Your task to perform on an android device: turn on airplane mode Image 0: 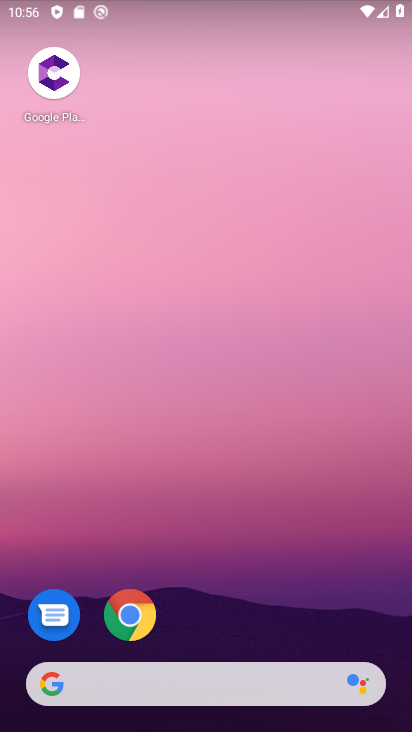
Step 0: drag from (275, 600) to (337, 36)
Your task to perform on an android device: turn on airplane mode Image 1: 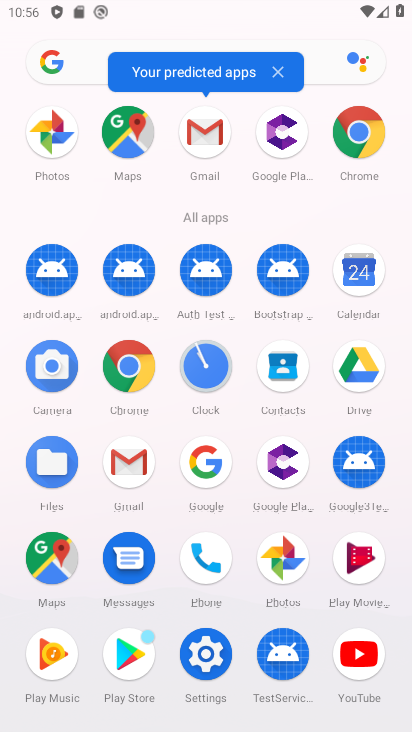
Step 1: click (197, 660)
Your task to perform on an android device: turn on airplane mode Image 2: 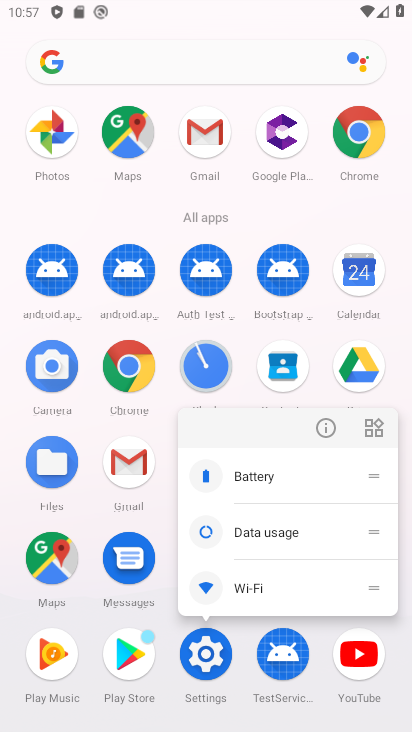
Step 2: click (194, 649)
Your task to perform on an android device: turn on airplane mode Image 3: 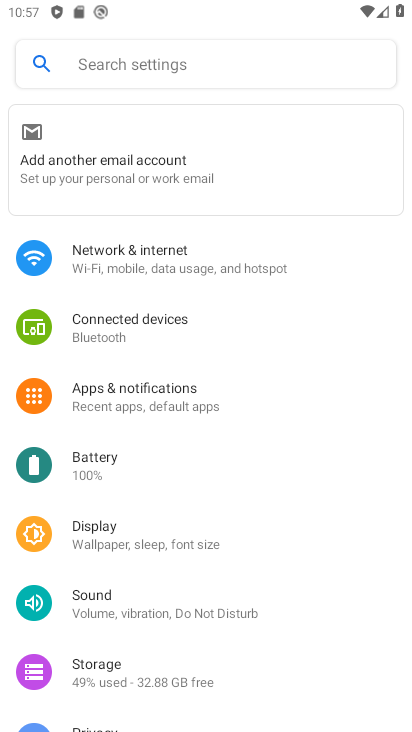
Step 3: click (161, 269)
Your task to perform on an android device: turn on airplane mode Image 4: 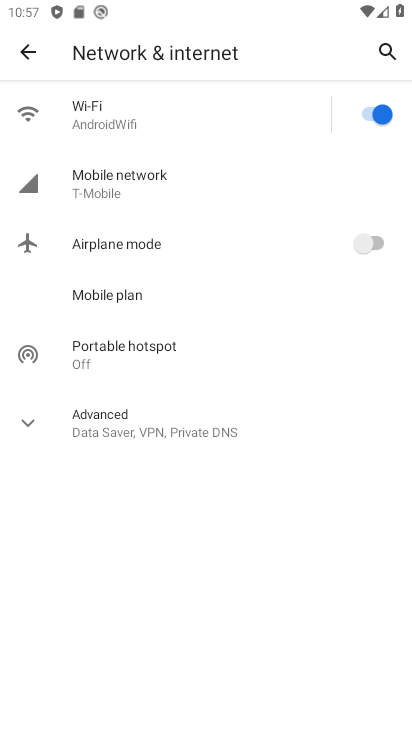
Step 4: click (334, 242)
Your task to perform on an android device: turn on airplane mode Image 5: 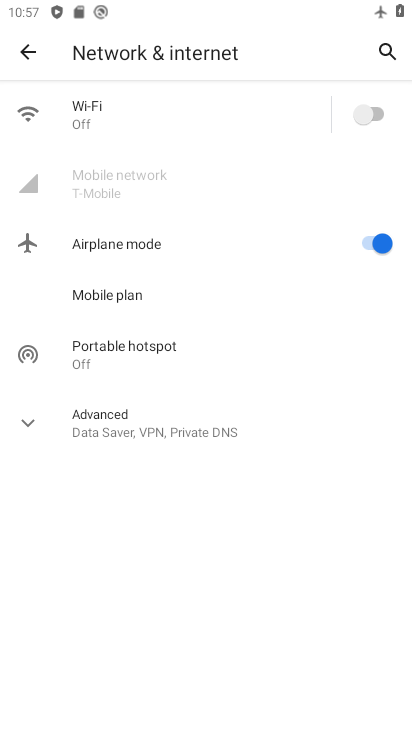
Step 5: task complete